Your task to perform on an android device: Search for flights from Seoul to Barcelona Image 0: 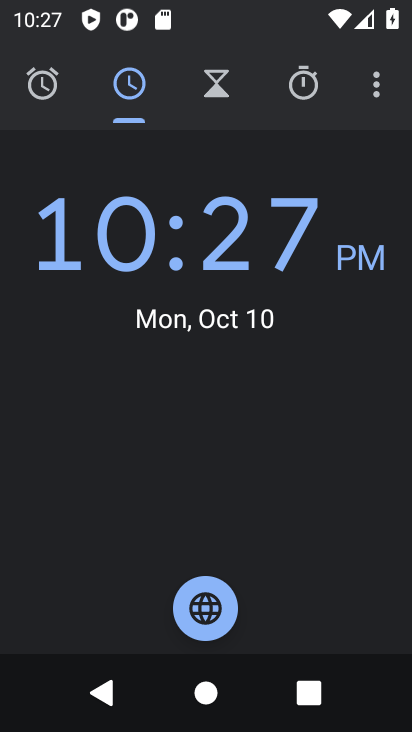
Step 0: press home button
Your task to perform on an android device: Search for flights from Seoul to Barcelona Image 1: 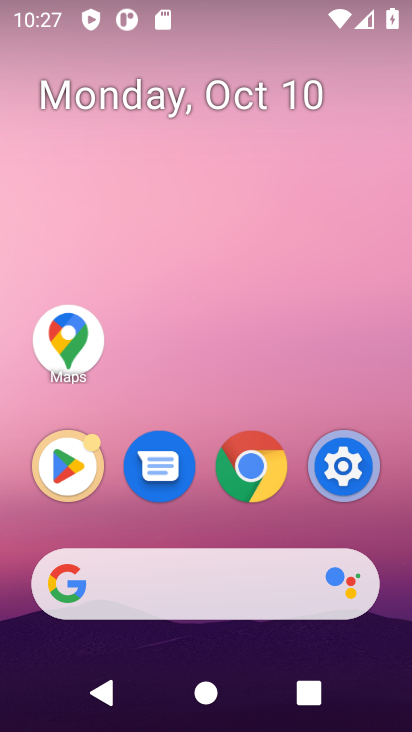
Step 1: click (63, 583)
Your task to perform on an android device: Search for flights from Seoul to Barcelona Image 2: 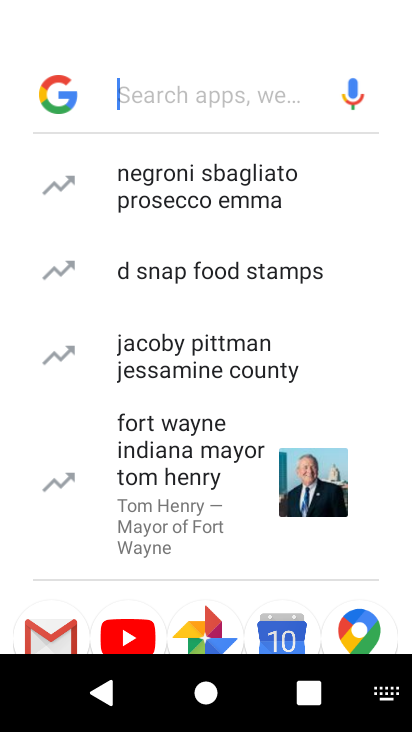
Step 2: type "flights from Seoul to Barcelona"
Your task to perform on an android device: Search for flights from Seoul to Barcelona Image 3: 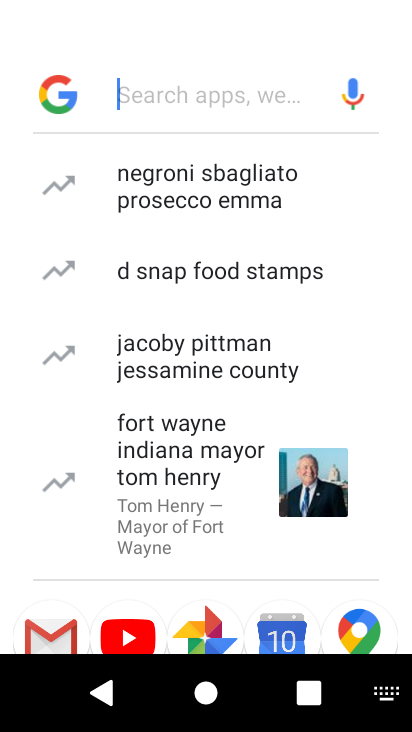
Step 3: click (174, 90)
Your task to perform on an android device: Search for flights from Seoul to Barcelona Image 4: 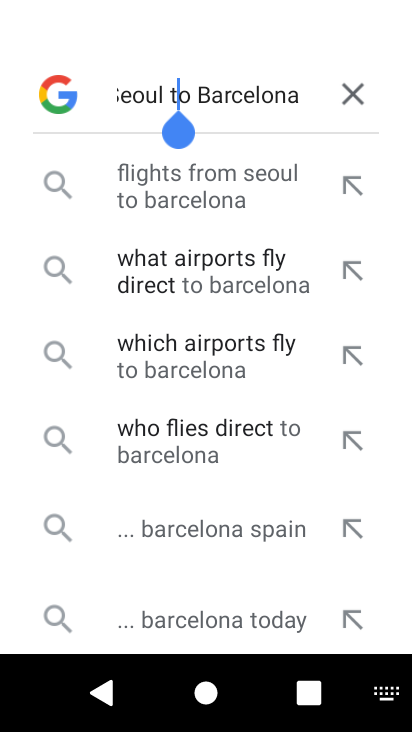
Step 4: press enter
Your task to perform on an android device: Search for flights from Seoul to Barcelona Image 5: 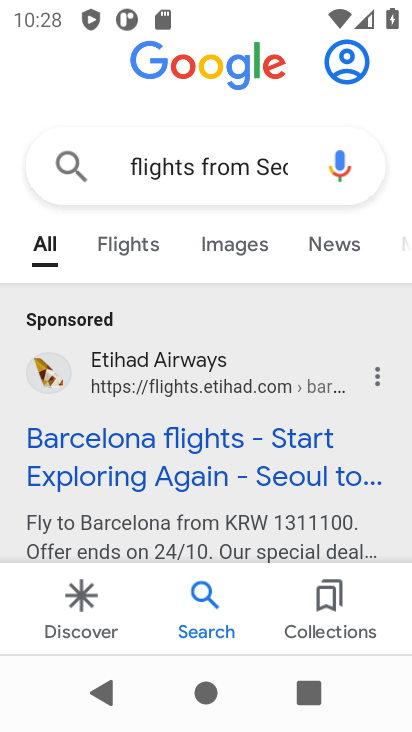
Step 5: task complete